Your task to perform on an android device: Open ESPN.com Image 0: 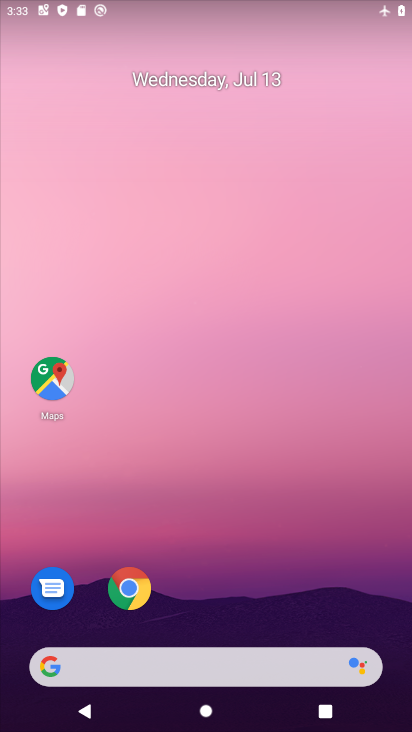
Step 0: click (365, 103)
Your task to perform on an android device: Open ESPN.com Image 1: 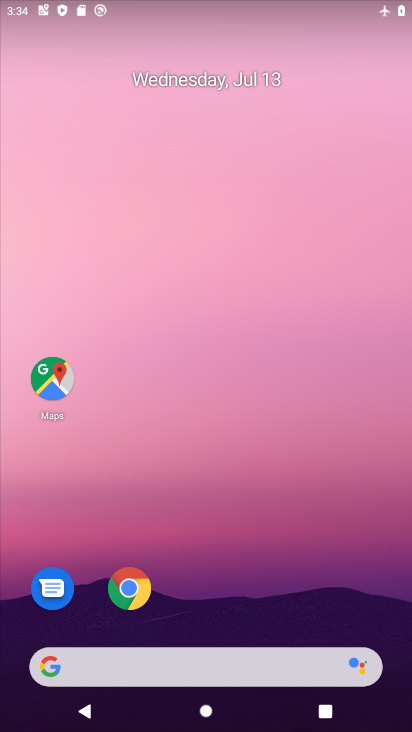
Step 1: drag from (268, 675) to (201, 243)
Your task to perform on an android device: Open ESPN.com Image 2: 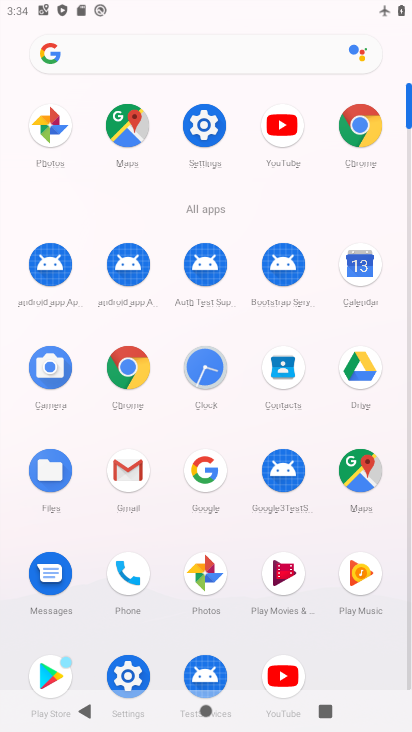
Step 2: click (345, 132)
Your task to perform on an android device: Open ESPN.com Image 3: 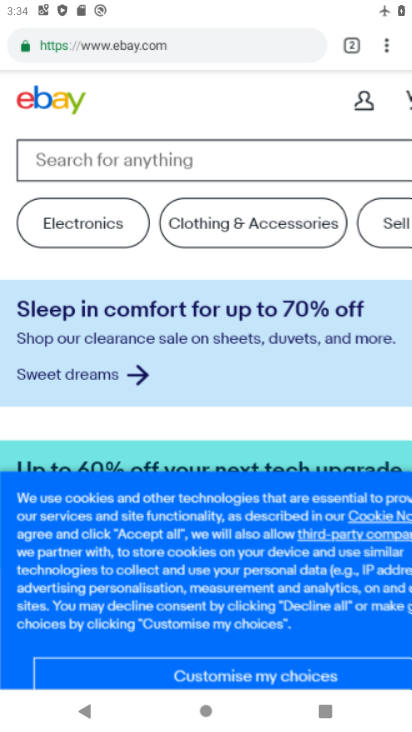
Step 3: drag from (384, 46) to (238, 150)
Your task to perform on an android device: Open ESPN.com Image 4: 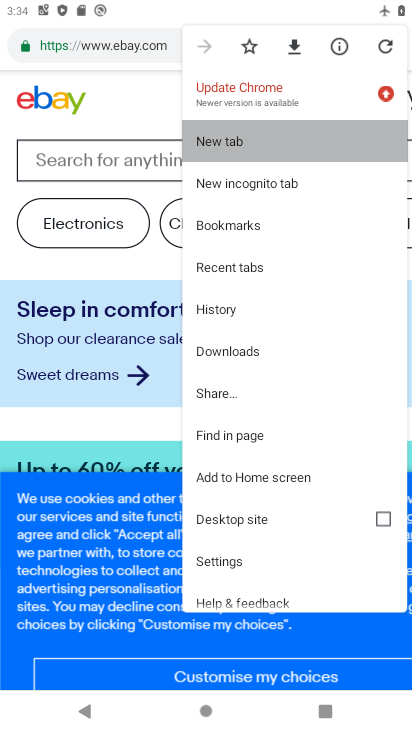
Step 4: click (238, 150)
Your task to perform on an android device: Open ESPN.com Image 5: 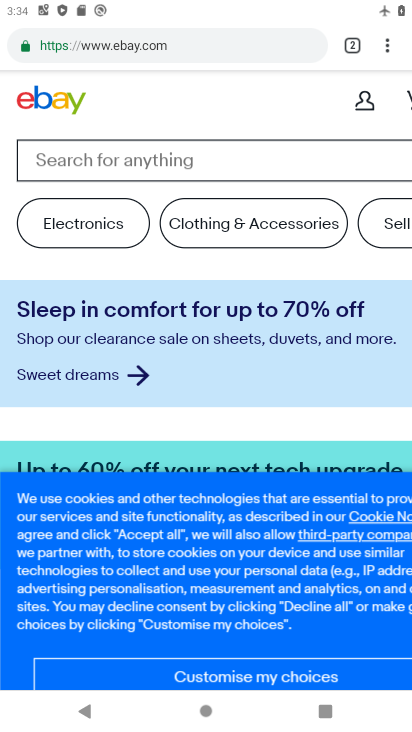
Step 5: click (238, 147)
Your task to perform on an android device: Open ESPN.com Image 6: 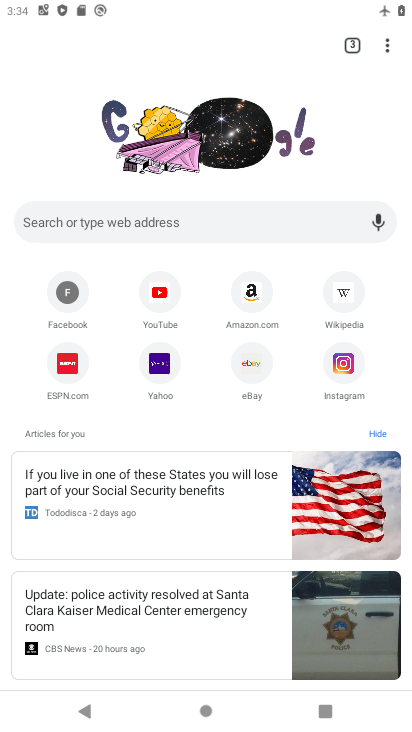
Step 6: click (64, 357)
Your task to perform on an android device: Open ESPN.com Image 7: 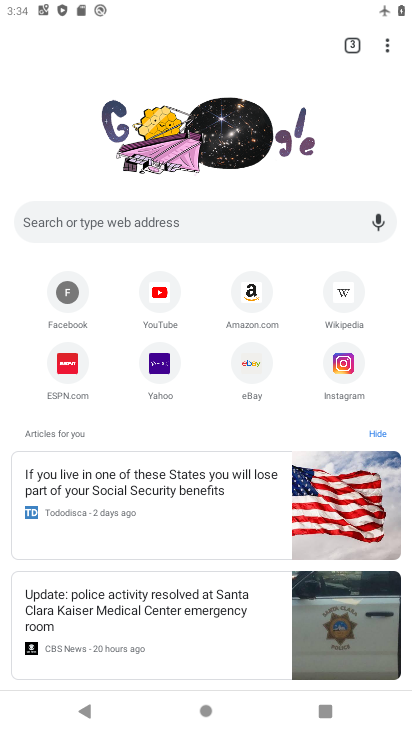
Step 7: click (64, 357)
Your task to perform on an android device: Open ESPN.com Image 8: 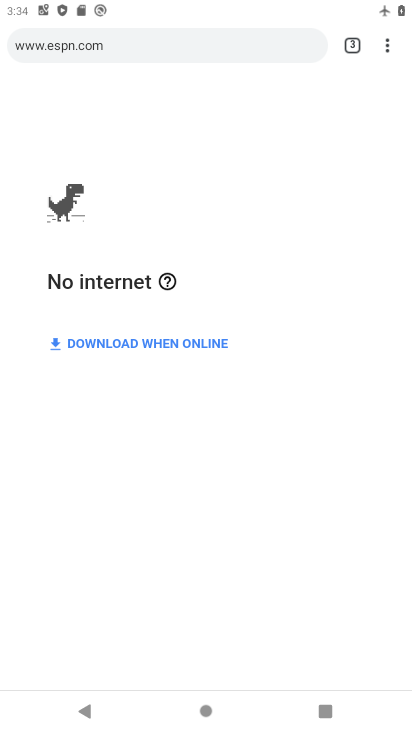
Step 8: task complete